Your task to perform on an android device: Open maps Image 0: 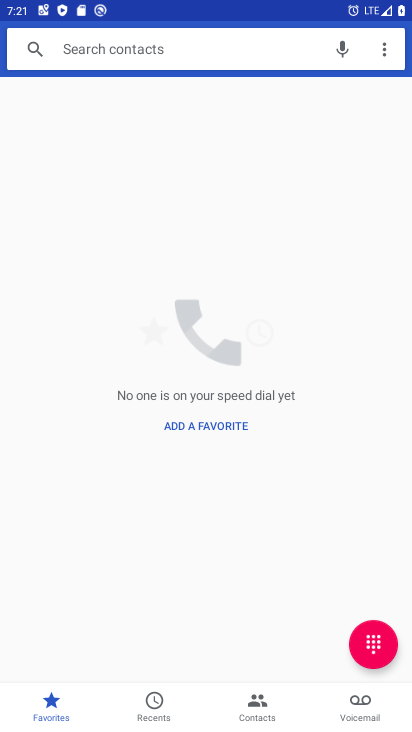
Step 0: press home button
Your task to perform on an android device: Open maps Image 1: 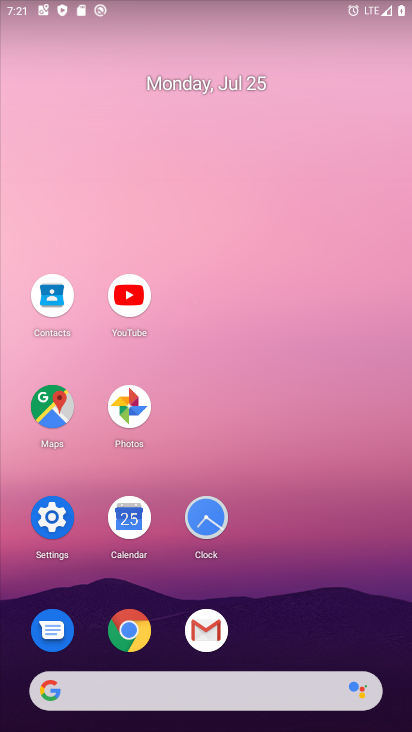
Step 1: click (48, 404)
Your task to perform on an android device: Open maps Image 2: 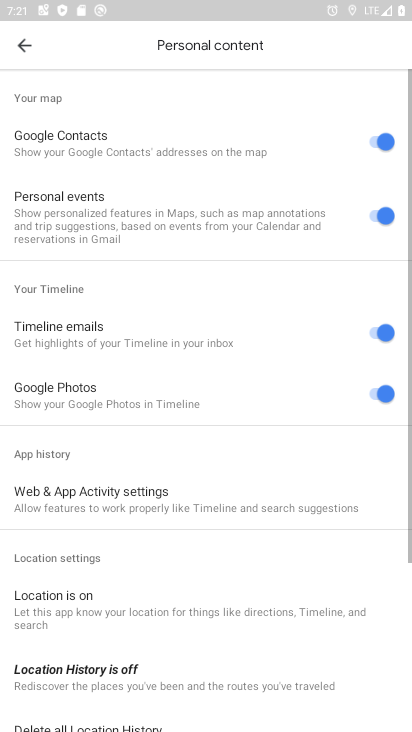
Step 2: click (19, 42)
Your task to perform on an android device: Open maps Image 3: 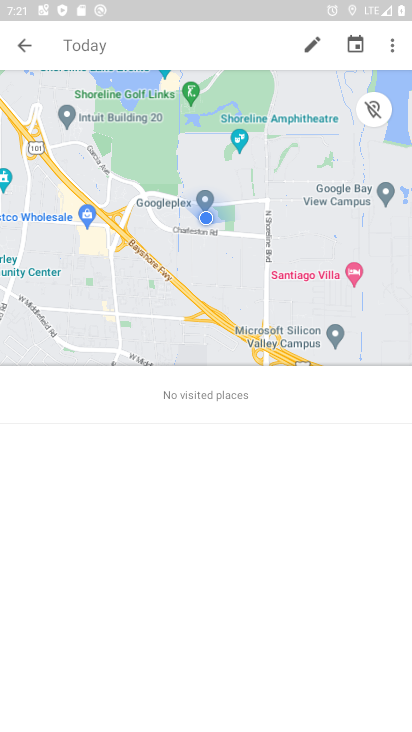
Step 3: click (29, 51)
Your task to perform on an android device: Open maps Image 4: 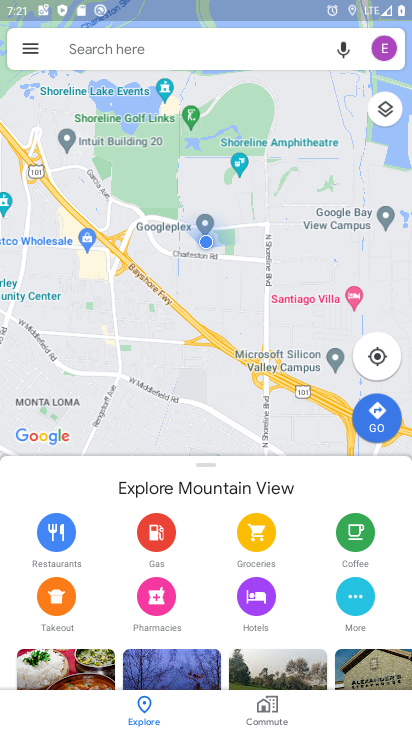
Step 4: task complete